Your task to perform on an android device: Go to ESPN.com Image 0: 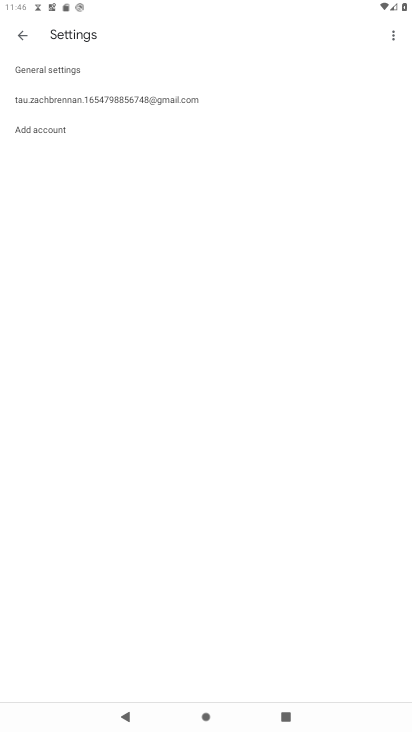
Step 0: press home button
Your task to perform on an android device: Go to ESPN.com Image 1: 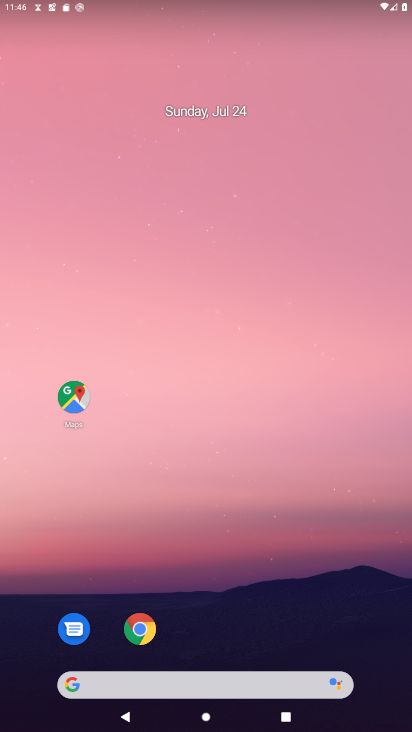
Step 1: click (137, 635)
Your task to perform on an android device: Go to ESPN.com Image 2: 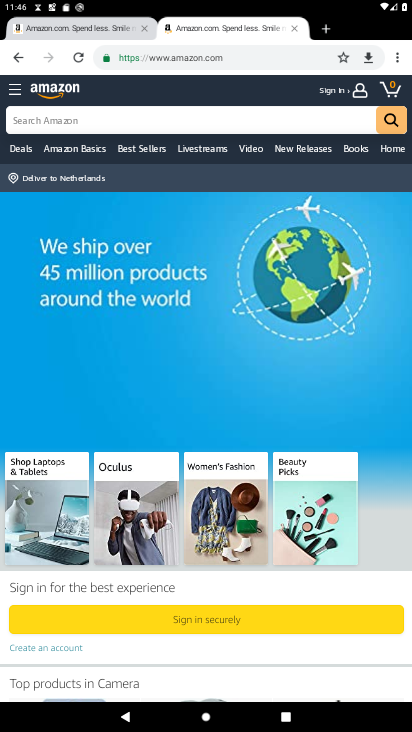
Step 2: click (165, 55)
Your task to perform on an android device: Go to ESPN.com Image 3: 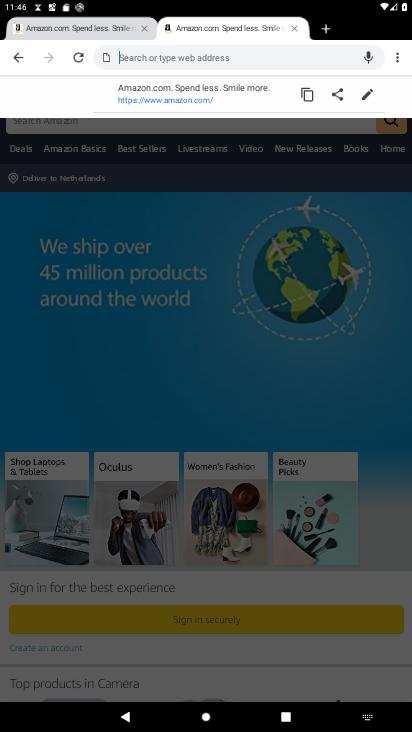
Step 3: type "ESPN.com"
Your task to perform on an android device: Go to ESPN.com Image 4: 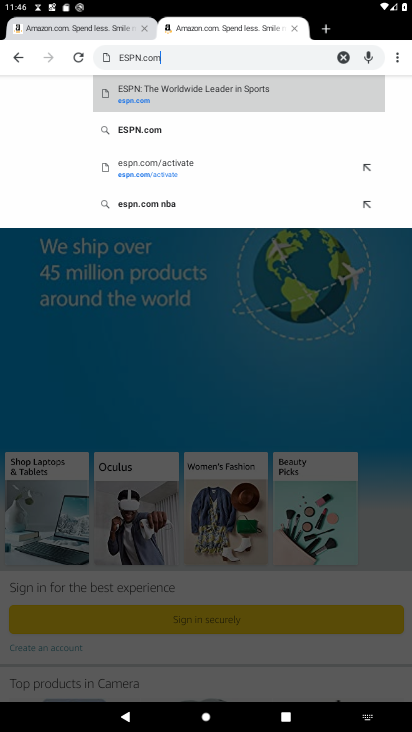
Step 4: click (124, 98)
Your task to perform on an android device: Go to ESPN.com Image 5: 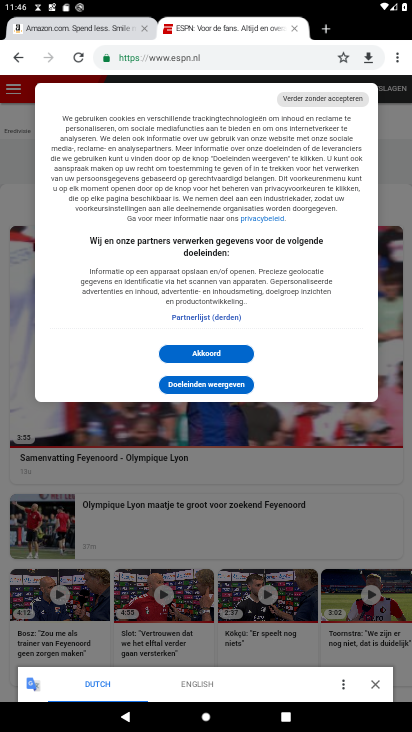
Step 5: task complete